Your task to perform on an android device: turn off location history Image 0: 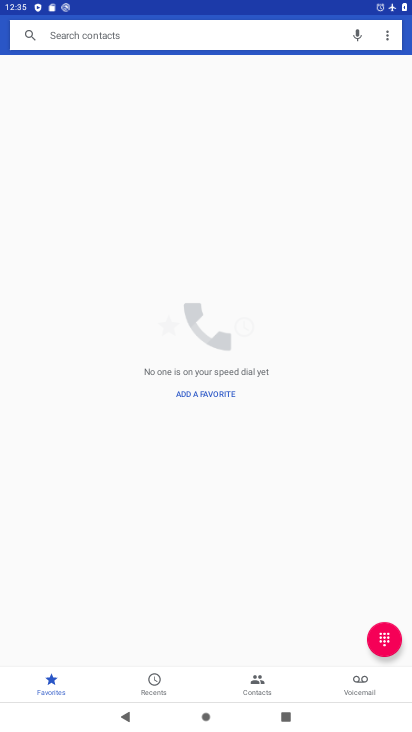
Step 0: press home button
Your task to perform on an android device: turn off location history Image 1: 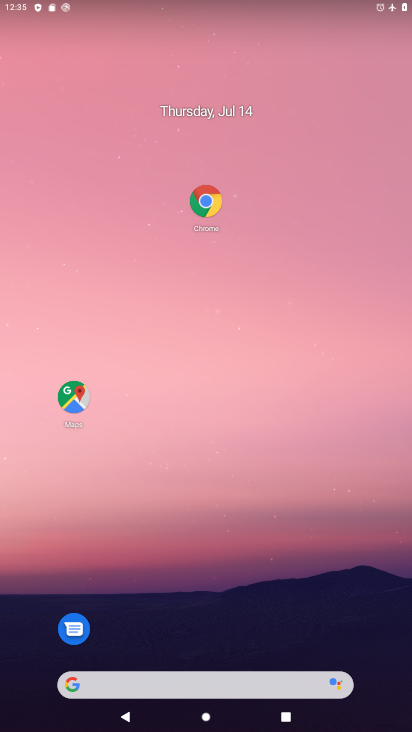
Step 1: drag from (202, 659) to (159, 161)
Your task to perform on an android device: turn off location history Image 2: 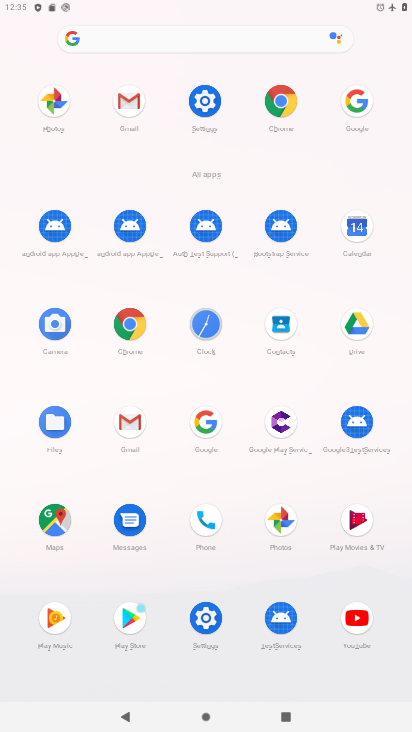
Step 2: click (205, 99)
Your task to perform on an android device: turn off location history Image 3: 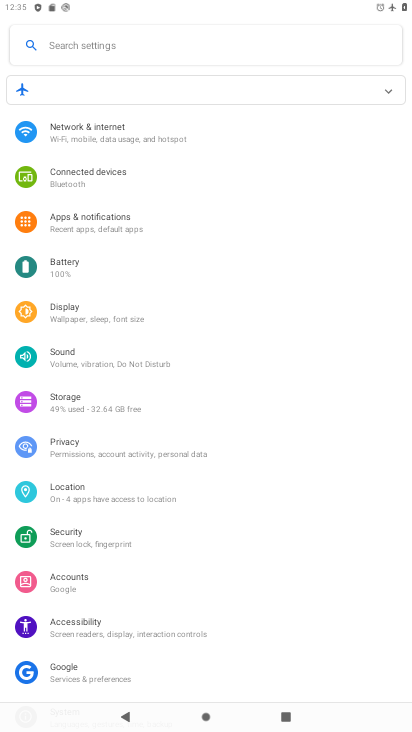
Step 3: click (64, 482)
Your task to perform on an android device: turn off location history Image 4: 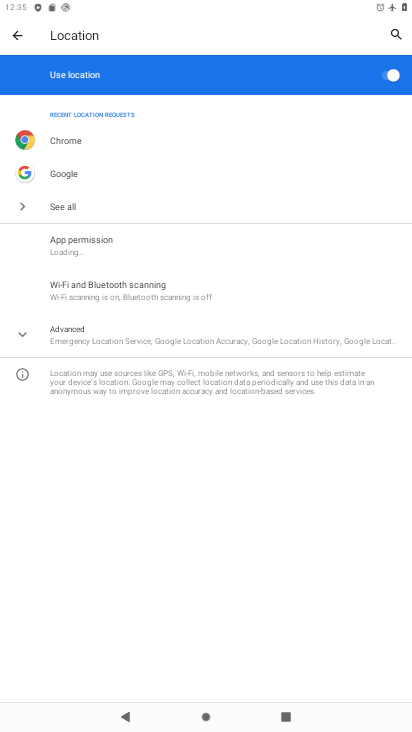
Step 4: click (63, 336)
Your task to perform on an android device: turn off location history Image 5: 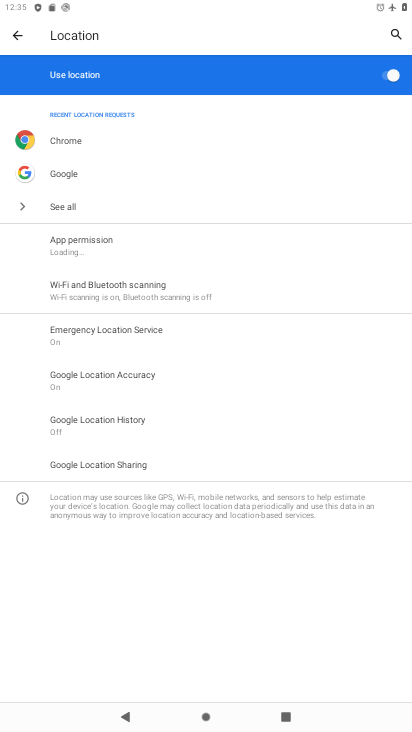
Step 5: click (90, 429)
Your task to perform on an android device: turn off location history Image 6: 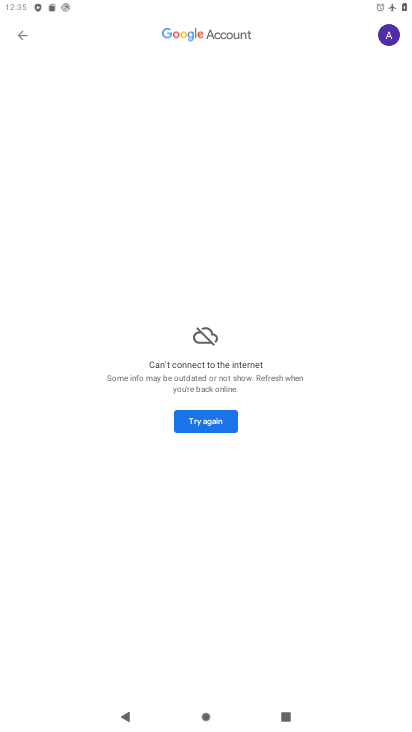
Step 6: click (195, 414)
Your task to perform on an android device: turn off location history Image 7: 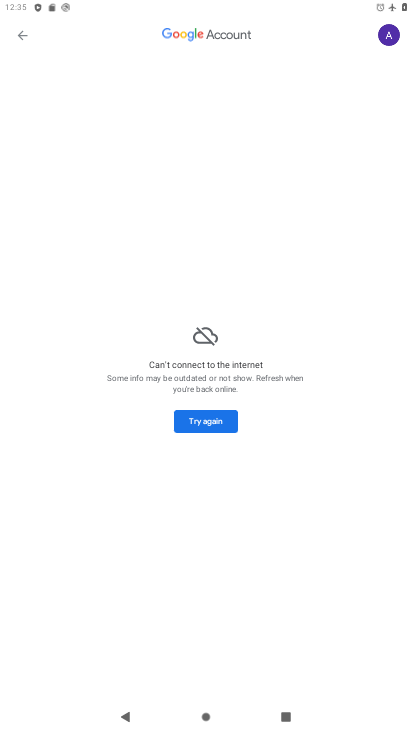
Step 7: click (214, 427)
Your task to perform on an android device: turn off location history Image 8: 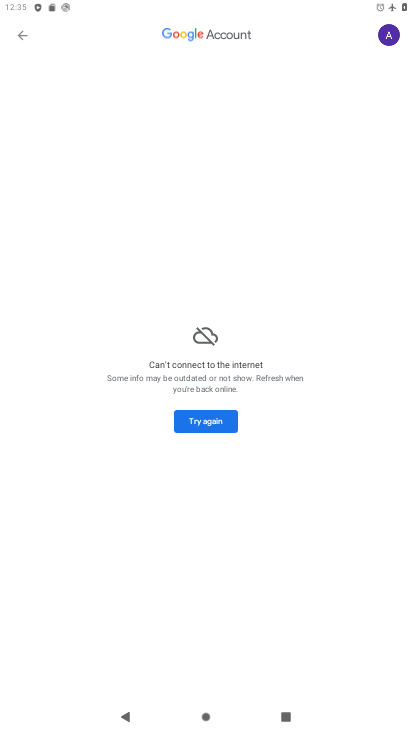
Step 8: task complete